Your task to perform on an android device: What is the recent news? Image 0: 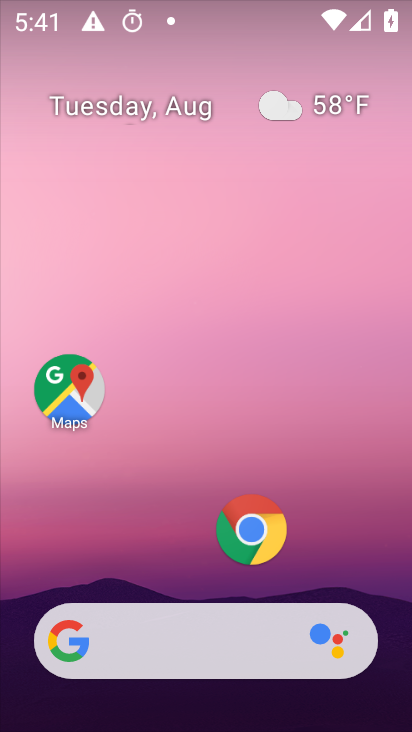
Step 0: drag from (202, 375) to (220, 165)
Your task to perform on an android device: What is the recent news? Image 1: 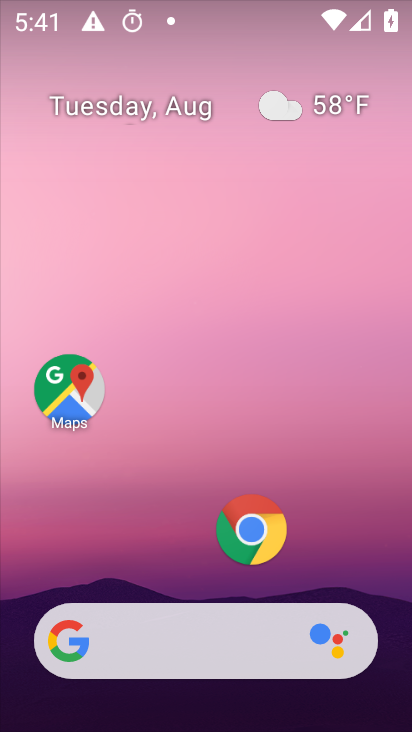
Step 1: drag from (192, 565) to (233, 153)
Your task to perform on an android device: What is the recent news? Image 2: 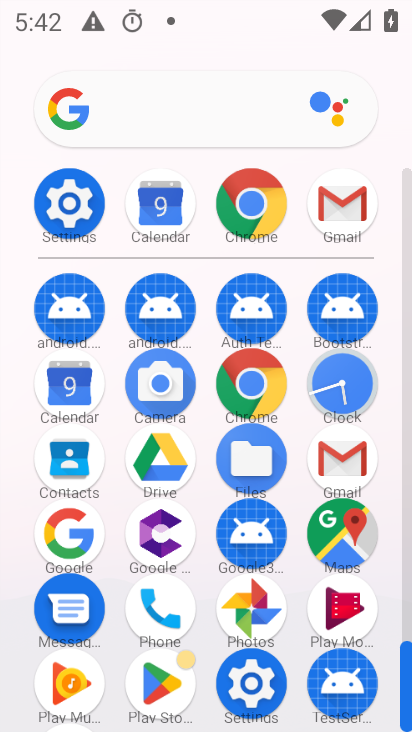
Step 2: click (75, 536)
Your task to perform on an android device: What is the recent news? Image 3: 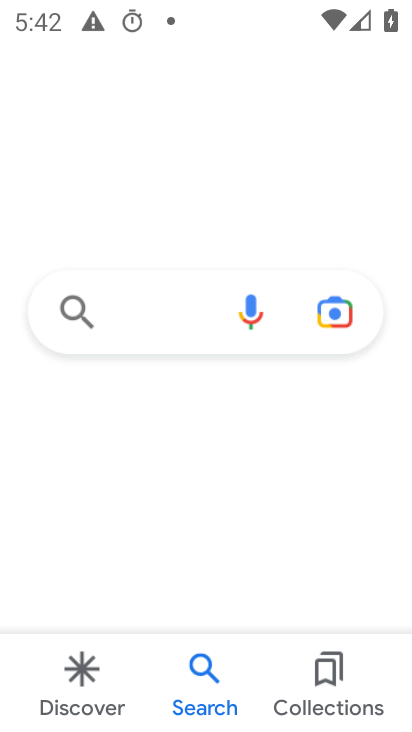
Step 3: click (160, 329)
Your task to perform on an android device: What is the recent news? Image 4: 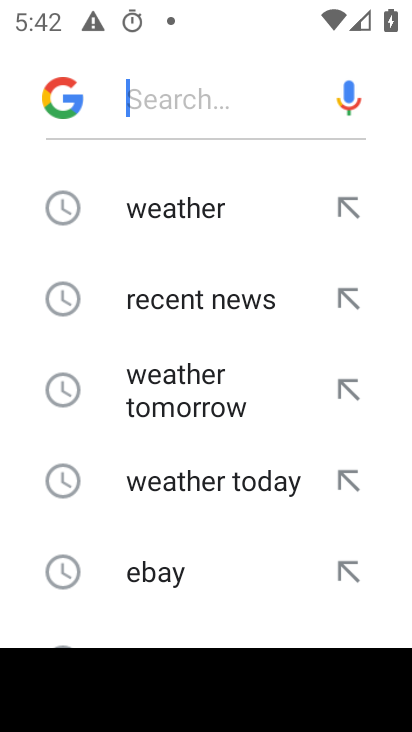
Step 4: click (193, 302)
Your task to perform on an android device: What is the recent news? Image 5: 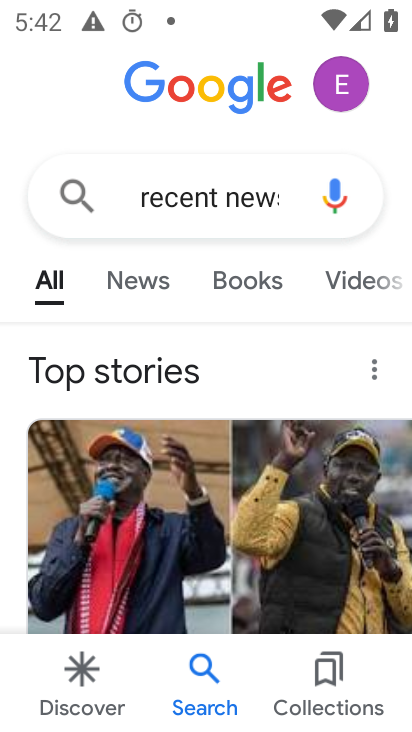
Step 5: click (133, 278)
Your task to perform on an android device: What is the recent news? Image 6: 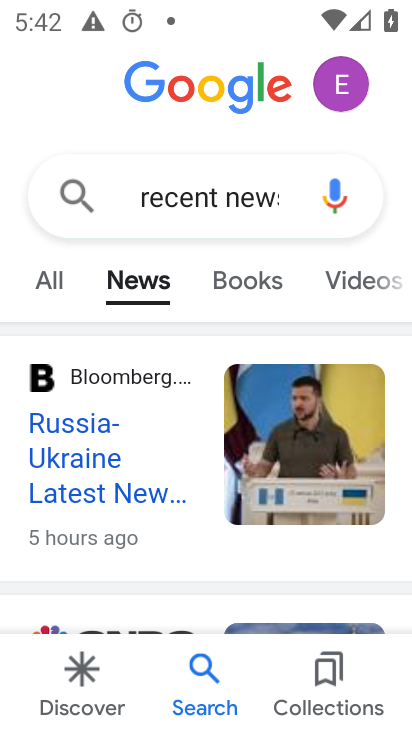
Step 6: task complete